Your task to perform on an android device: Open Chrome and go to the settings page Image 0: 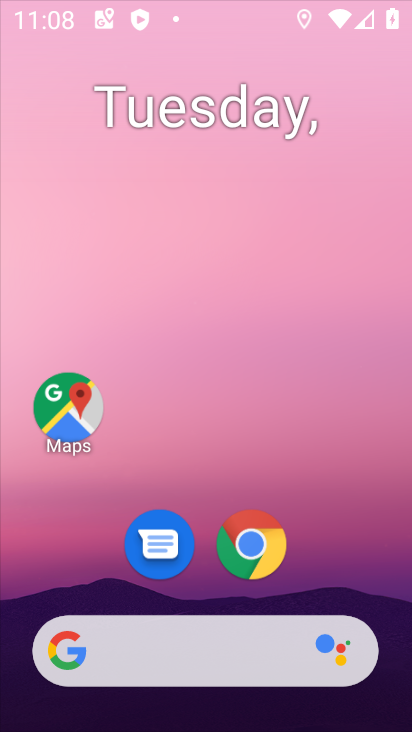
Step 0: drag from (370, 595) to (282, 80)
Your task to perform on an android device: Open Chrome and go to the settings page Image 1: 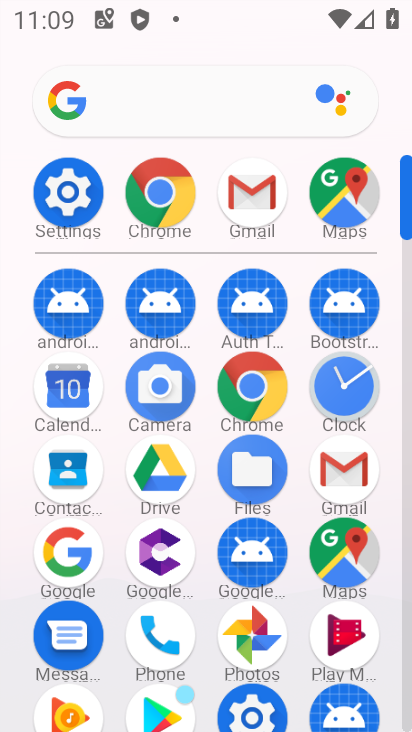
Step 1: click (262, 382)
Your task to perform on an android device: Open Chrome and go to the settings page Image 2: 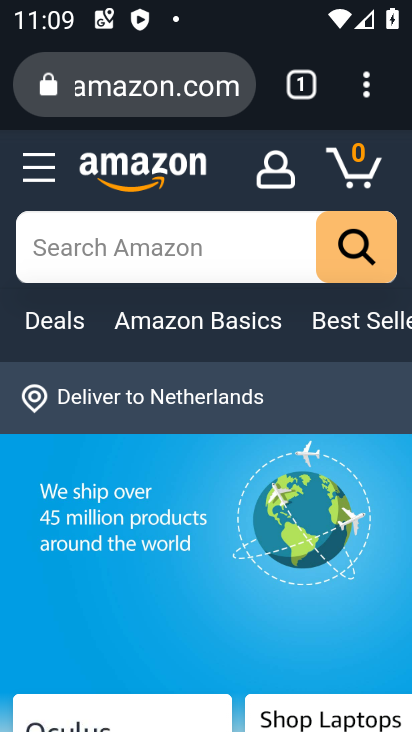
Step 2: press back button
Your task to perform on an android device: Open Chrome and go to the settings page Image 3: 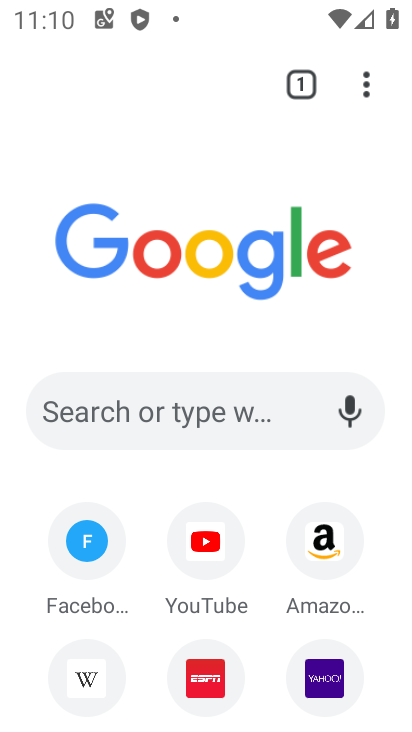
Step 3: click (355, 83)
Your task to perform on an android device: Open Chrome and go to the settings page Image 4: 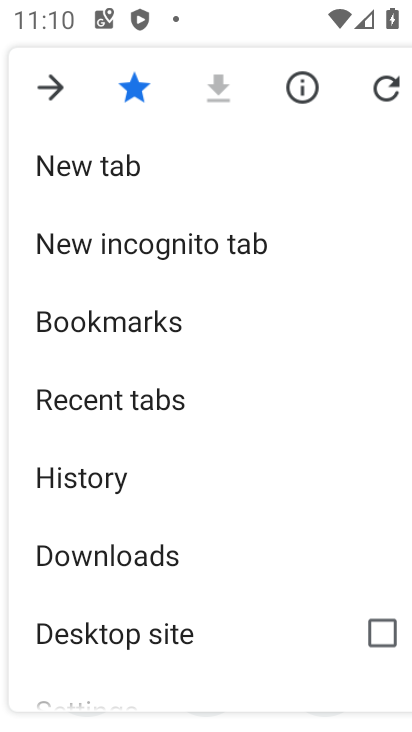
Step 4: drag from (322, 563) to (276, 153)
Your task to perform on an android device: Open Chrome and go to the settings page Image 5: 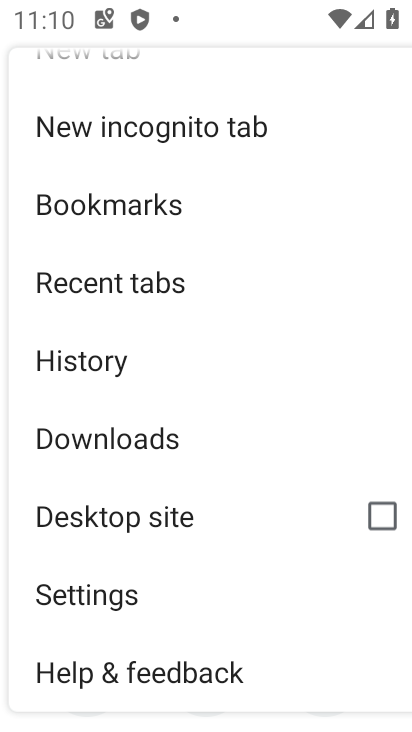
Step 5: click (104, 577)
Your task to perform on an android device: Open Chrome and go to the settings page Image 6: 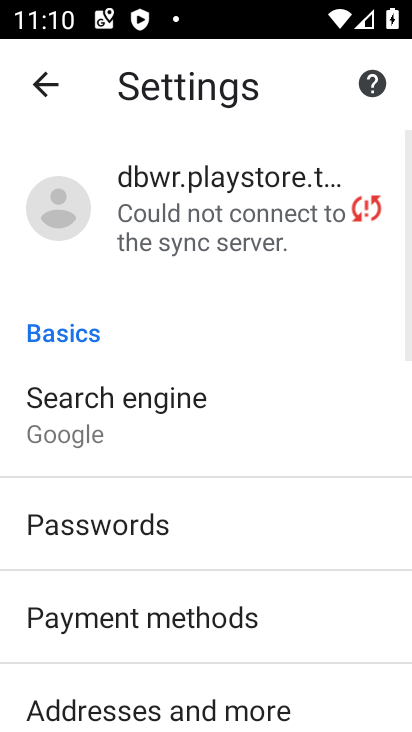
Step 6: task complete